Your task to perform on an android device: What is the speed of a rocket? Image 0: 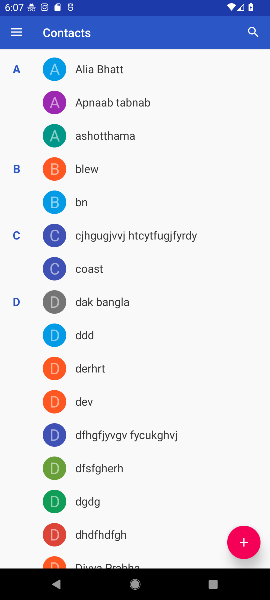
Step 0: press home button
Your task to perform on an android device: What is the speed of a rocket? Image 1: 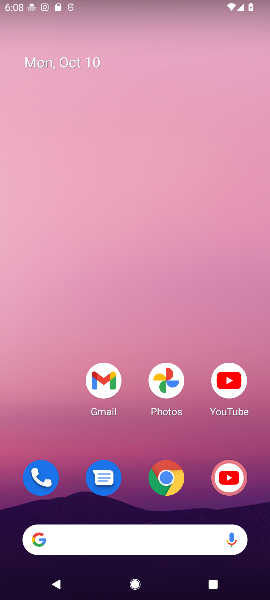
Step 1: click (179, 490)
Your task to perform on an android device: What is the speed of a rocket? Image 2: 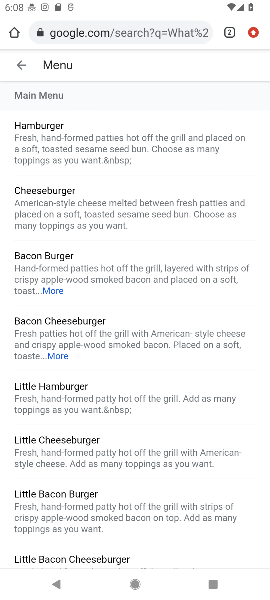
Step 2: click (96, 27)
Your task to perform on an android device: What is the speed of a rocket? Image 3: 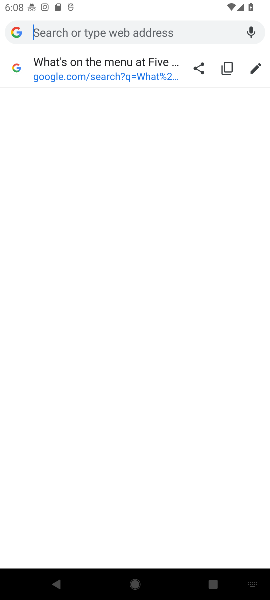
Step 3: type " speed of a rocket?"
Your task to perform on an android device: What is the speed of a rocket? Image 4: 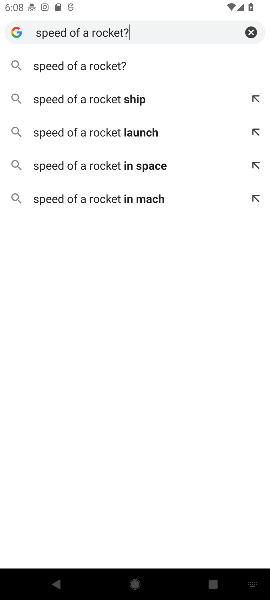
Step 4: click (107, 59)
Your task to perform on an android device: What is the speed of a rocket? Image 5: 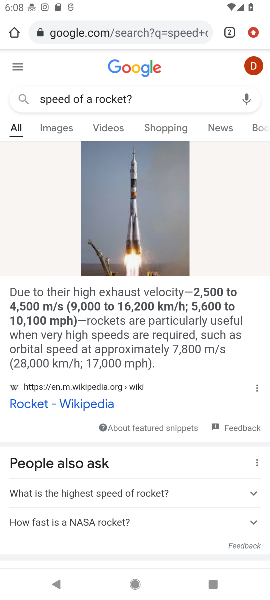
Step 5: task complete